Your task to perform on an android device: turn pop-ups on in chrome Image 0: 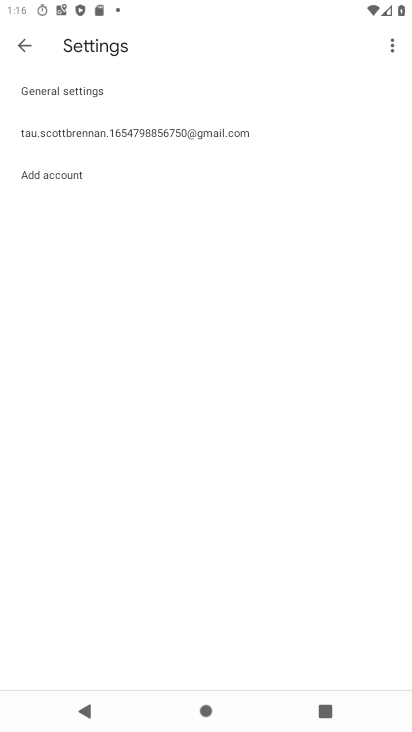
Step 0: press home button
Your task to perform on an android device: turn pop-ups on in chrome Image 1: 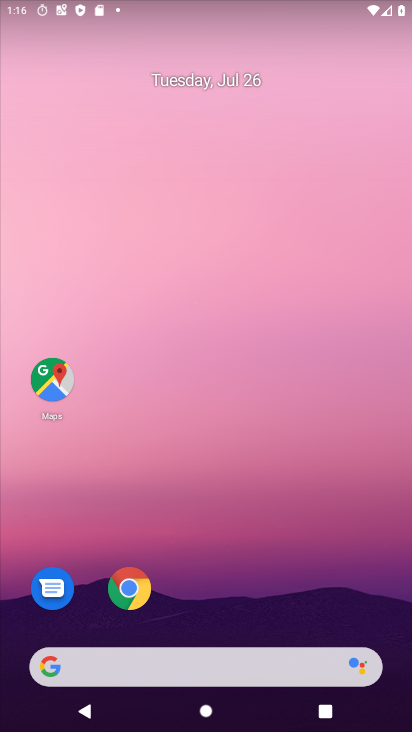
Step 1: click (127, 591)
Your task to perform on an android device: turn pop-ups on in chrome Image 2: 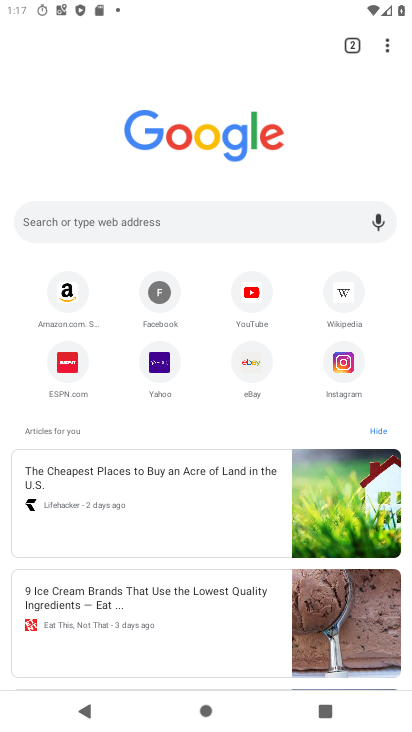
Step 2: click (394, 46)
Your task to perform on an android device: turn pop-ups on in chrome Image 3: 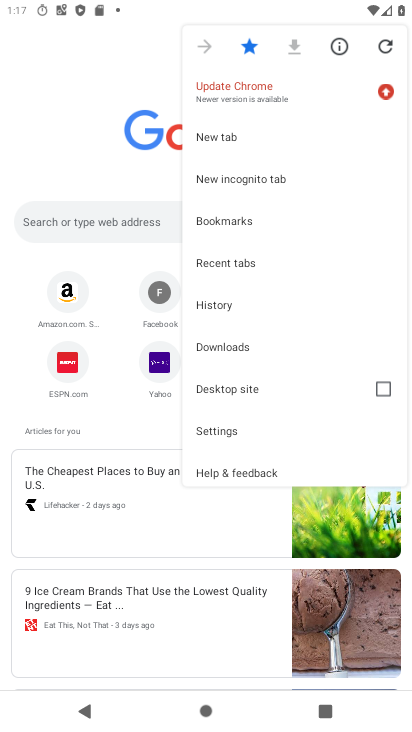
Step 3: click (241, 429)
Your task to perform on an android device: turn pop-ups on in chrome Image 4: 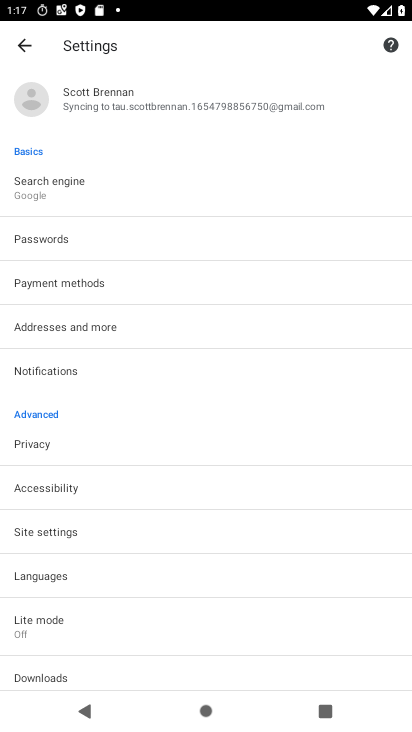
Step 4: click (121, 530)
Your task to perform on an android device: turn pop-ups on in chrome Image 5: 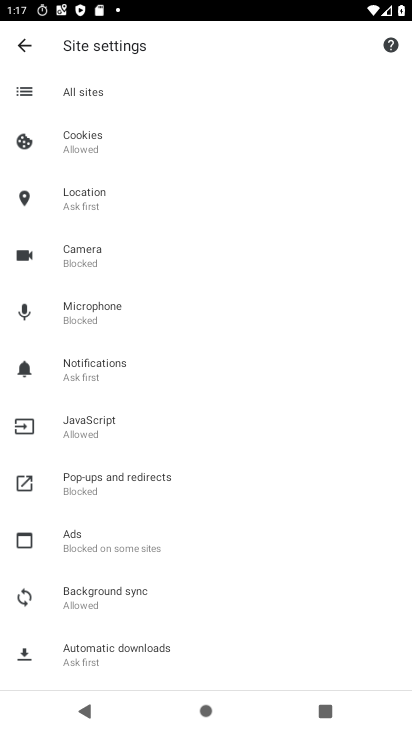
Step 5: click (167, 482)
Your task to perform on an android device: turn pop-ups on in chrome Image 6: 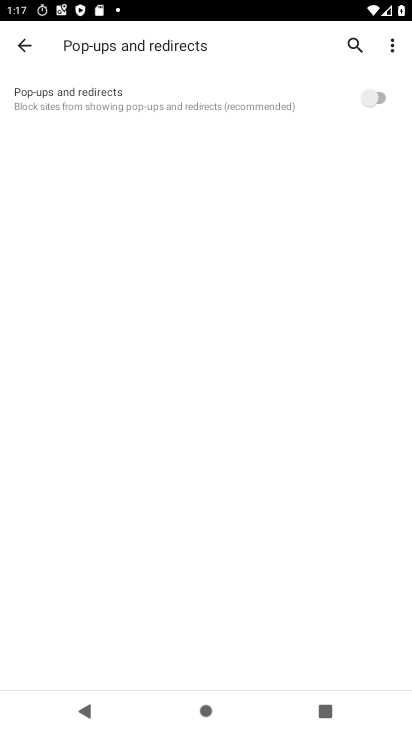
Step 6: click (365, 97)
Your task to perform on an android device: turn pop-ups on in chrome Image 7: 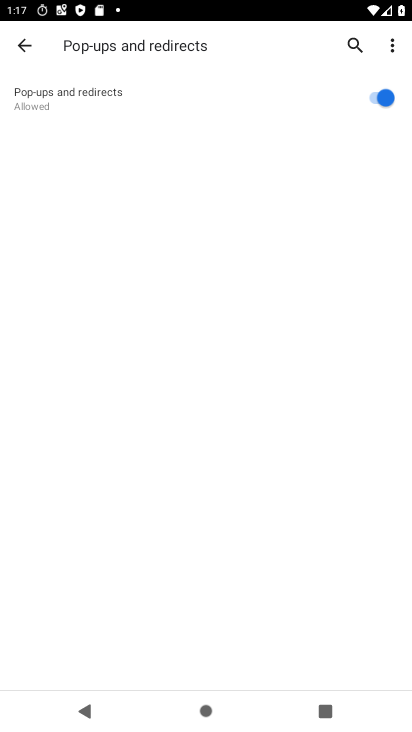
Step 7: task complete